Your task to perform on an android device: Go to location settings Image 0: 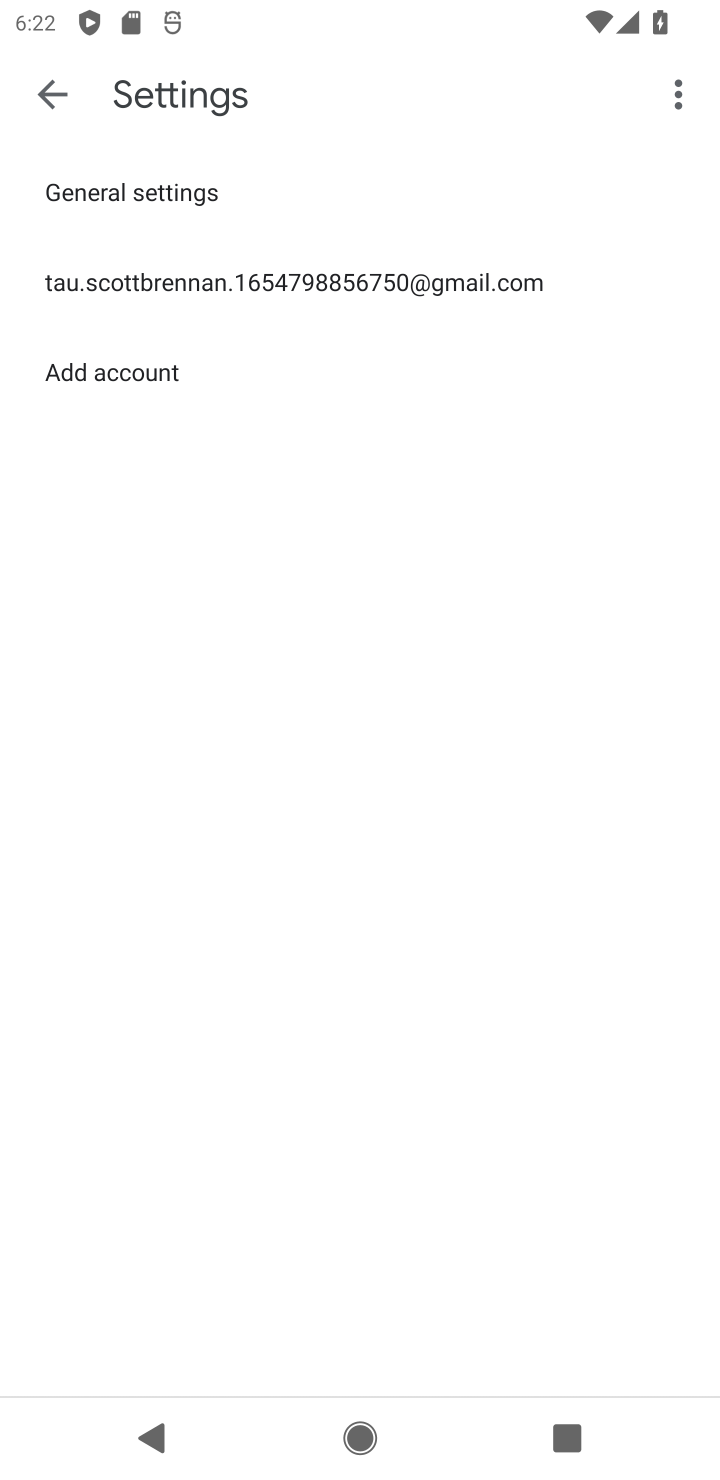
Step 0: press home button
Your task to perform on an android device: Go to location settings Image 1: 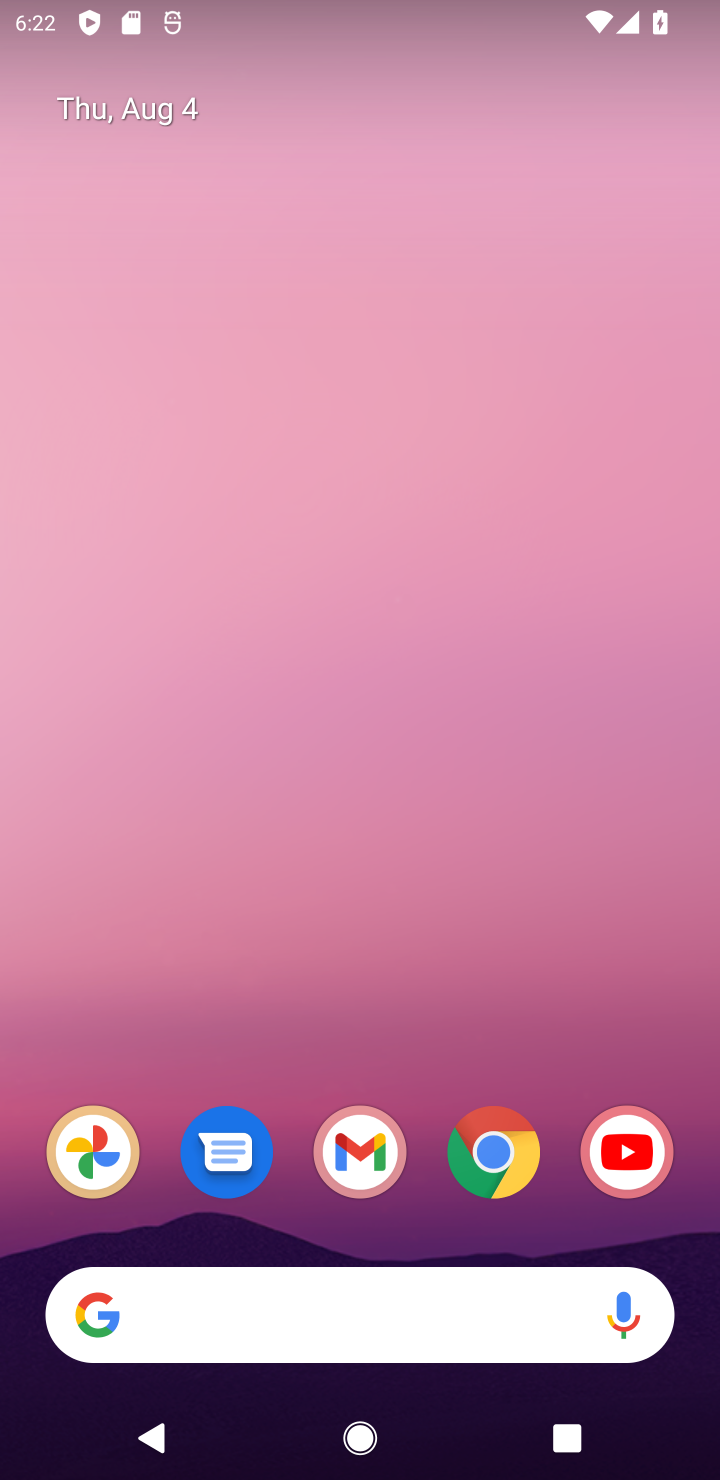
Step 1: drag from (36, 1308) to (373, 398)
Your task to perform on an android device: Go to location settings Image 2: 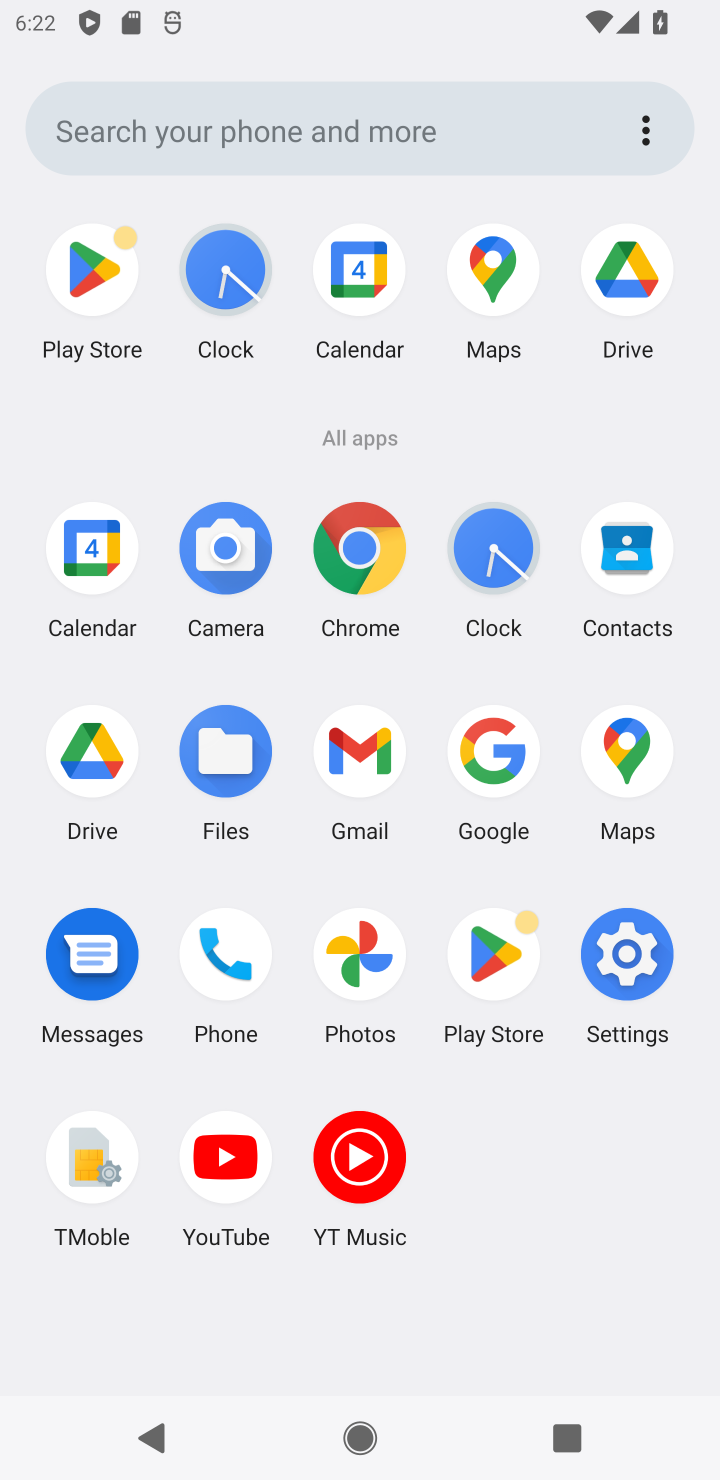
Step 2: click (632, 961)
Your task to perform on an android device: Go to location settings Image 3: 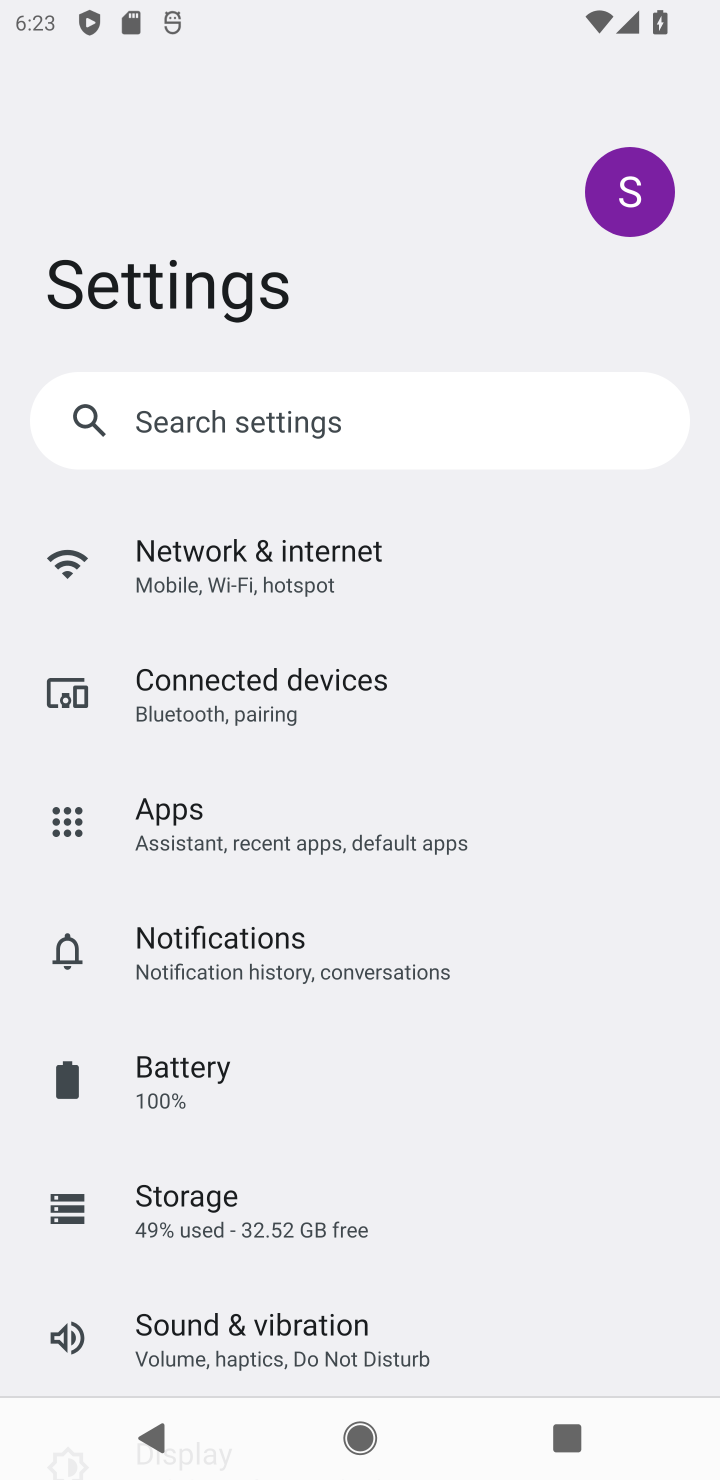
Step 3: drag from (58, 1174) to (428, 407)
Your task to perform on an android device: Go to location settings Image 4: 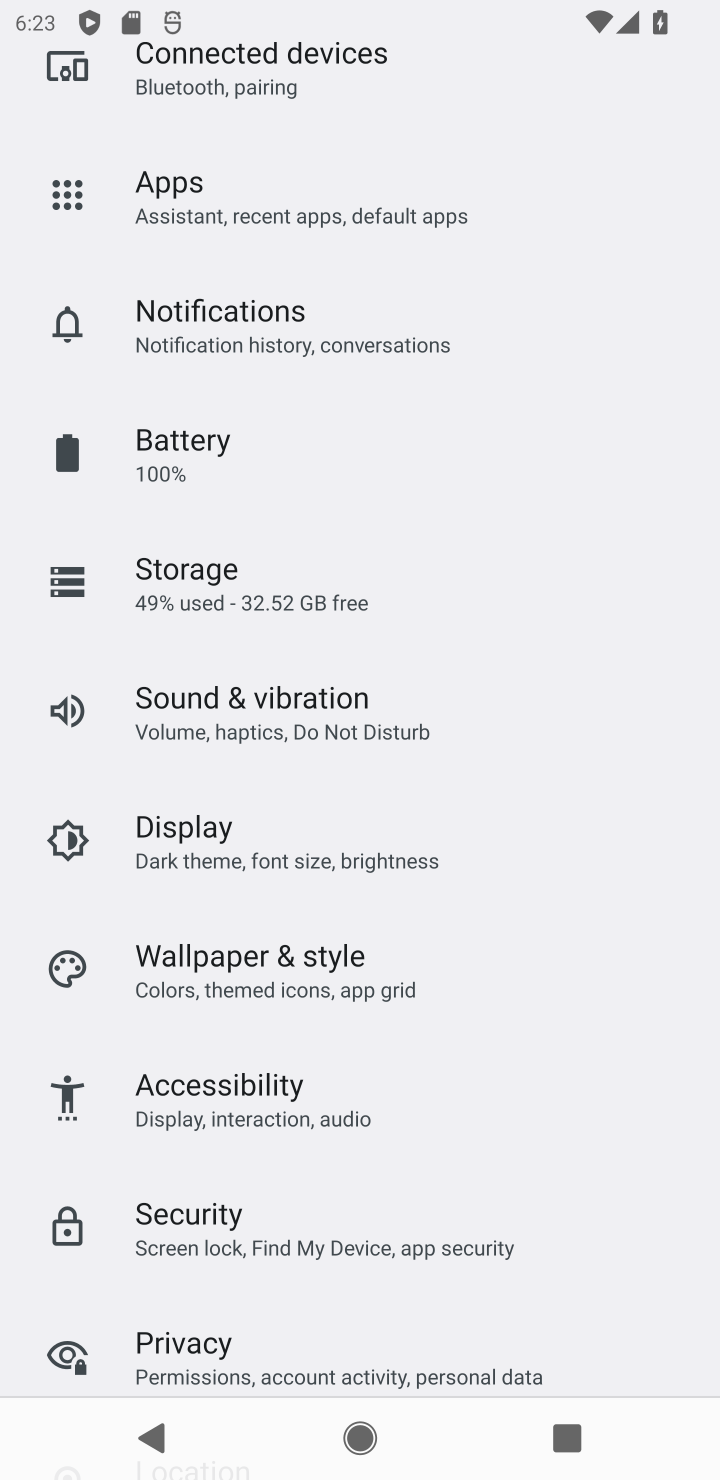
Step 4: drag from (65, 988) to (319, 438)
Your task to perform on an android device: Go to location settings Image 5: 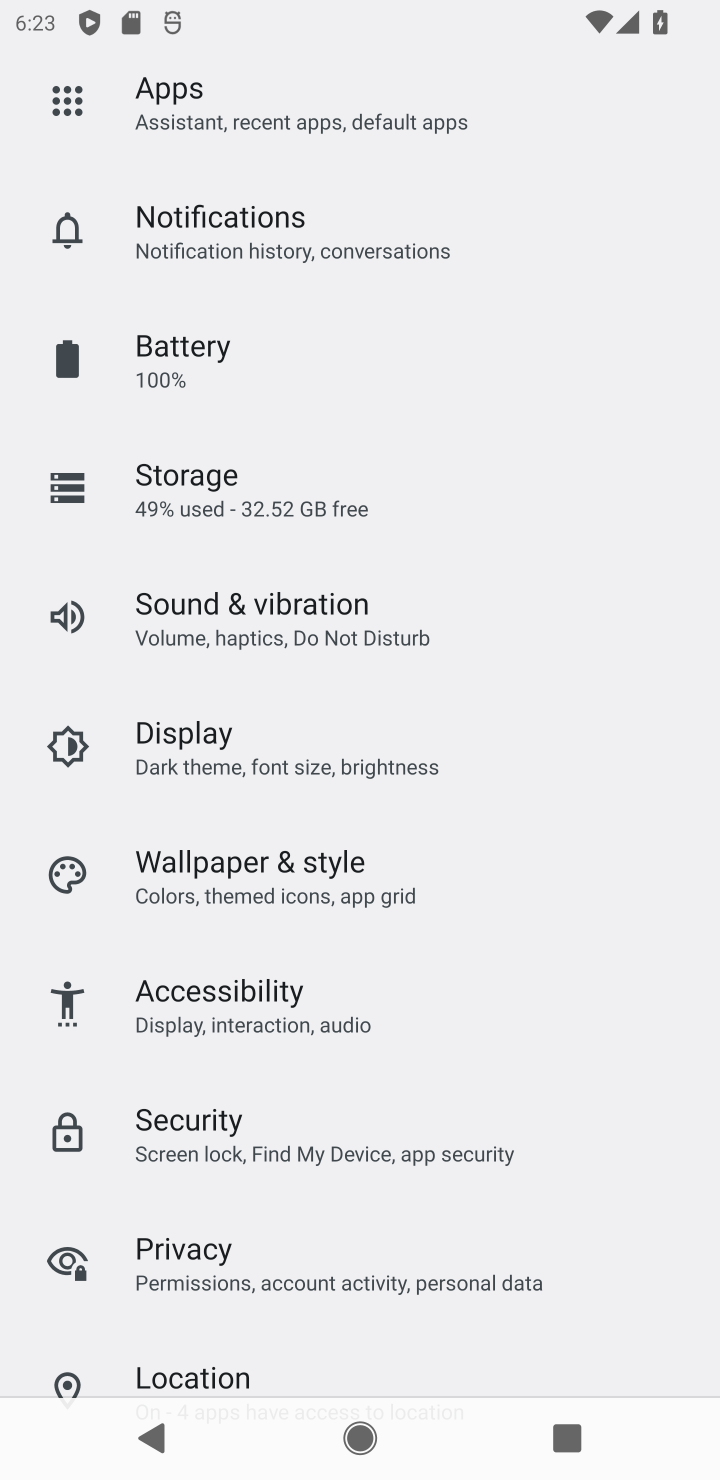
Step 5: click (207, 1363)
Your task to perform on an android device: Go to location settings Image 6: 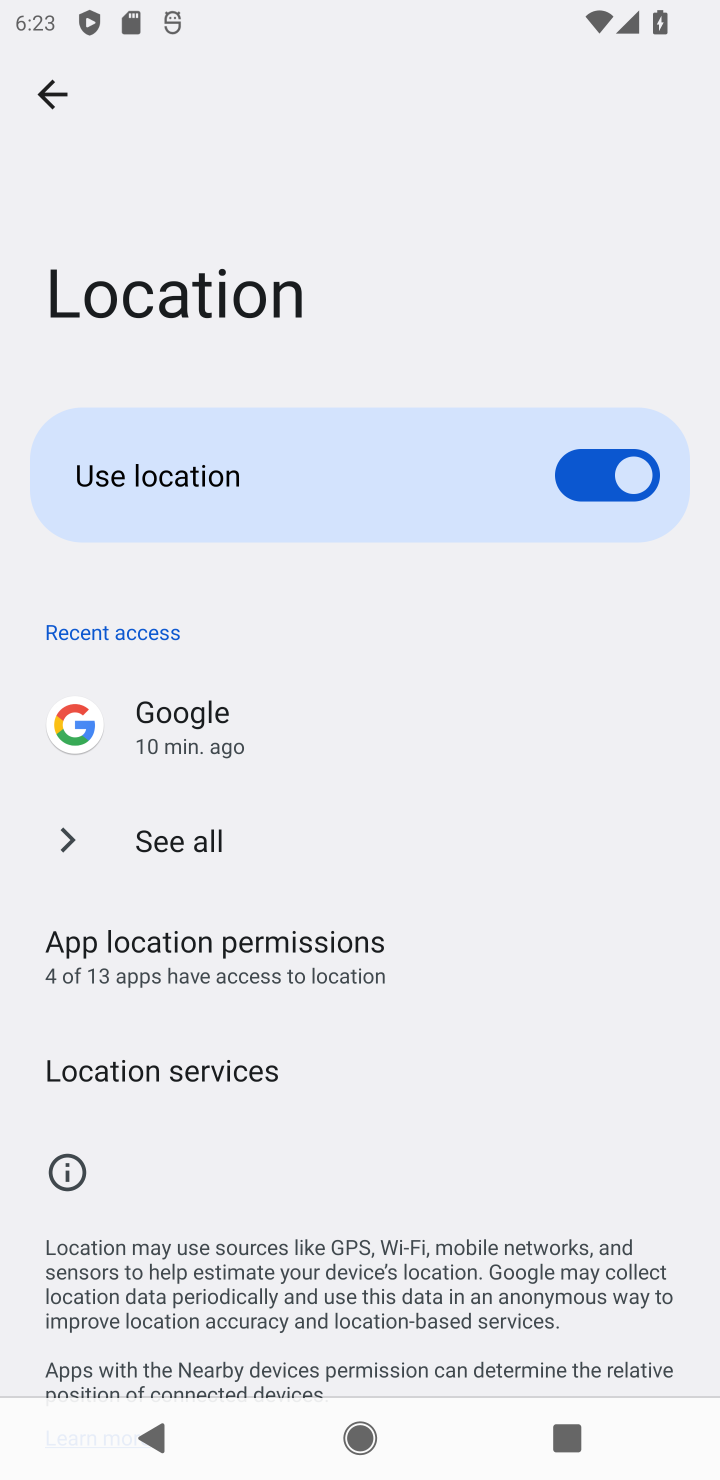
Step 6: task complete